Your task to perform on an android device: Add "apple airpods pro" to the cart on target.com Image 0: 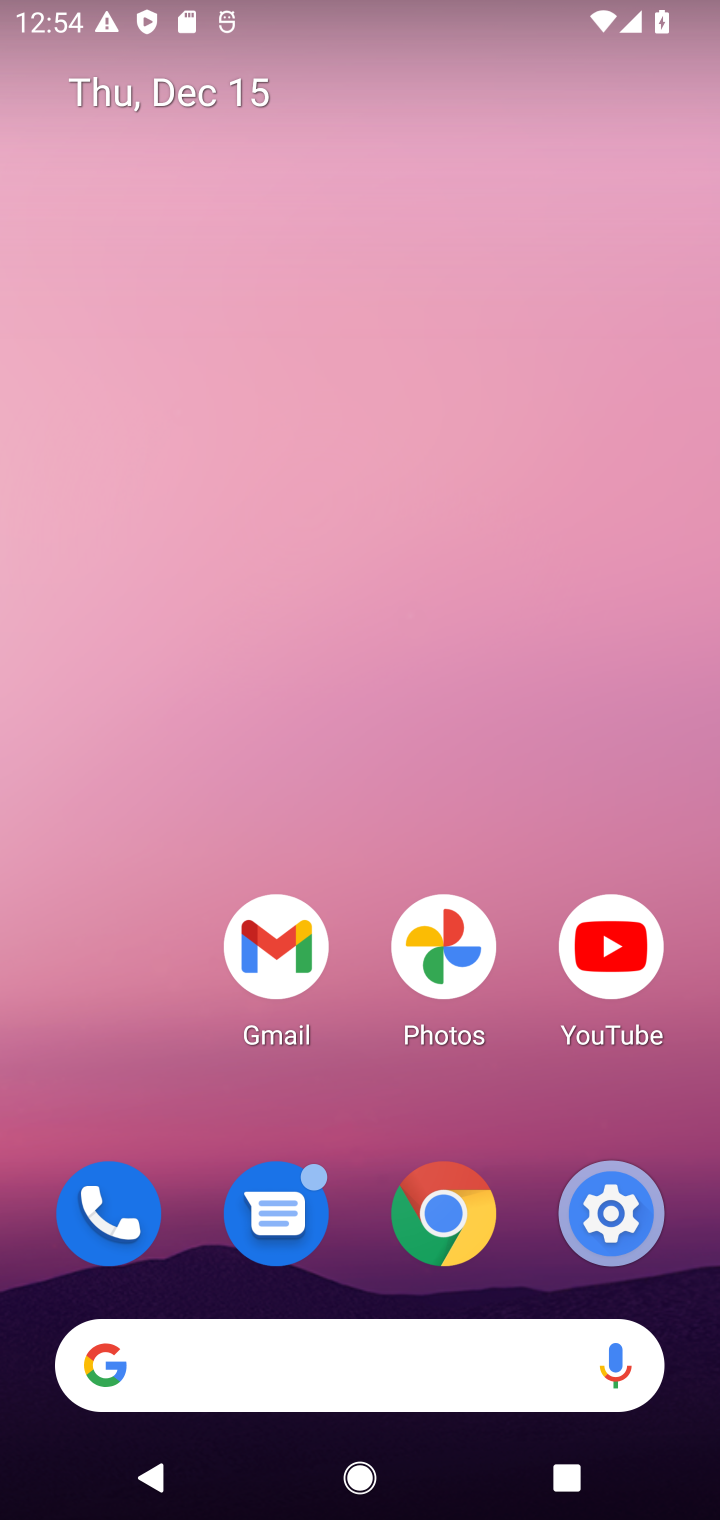
Step 0: task complete